Your task to perform on an android device: Go to privacy settings Image 0: 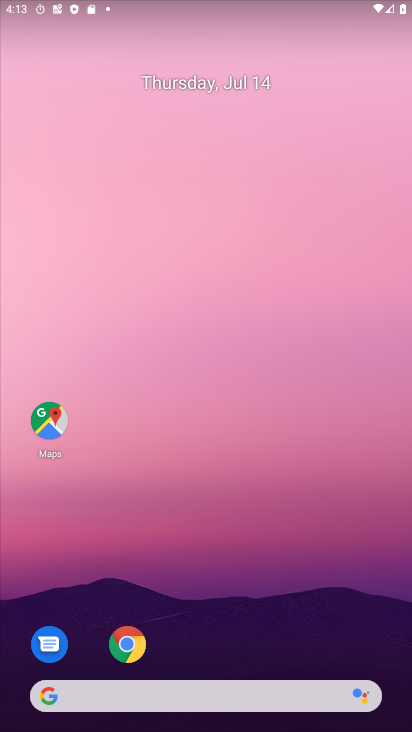
Step 0: drag from (257, 567) to (271, 2)
Your task to perform on an android device: Go to privacy settings Image 1: 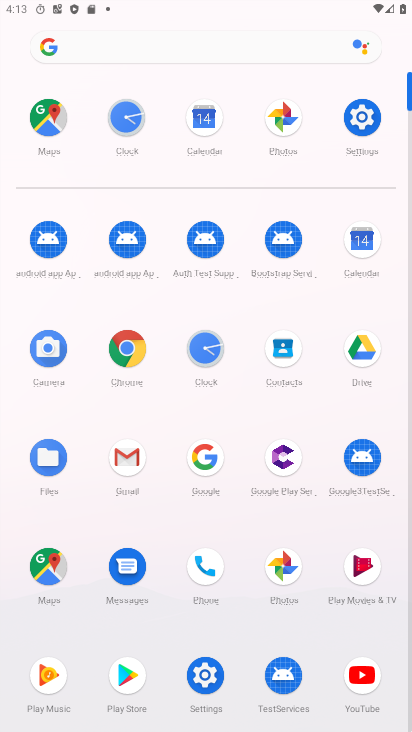
Step 1: click (370, 110)
Your task to perform on an android device: Go to privacy settings Image 2: 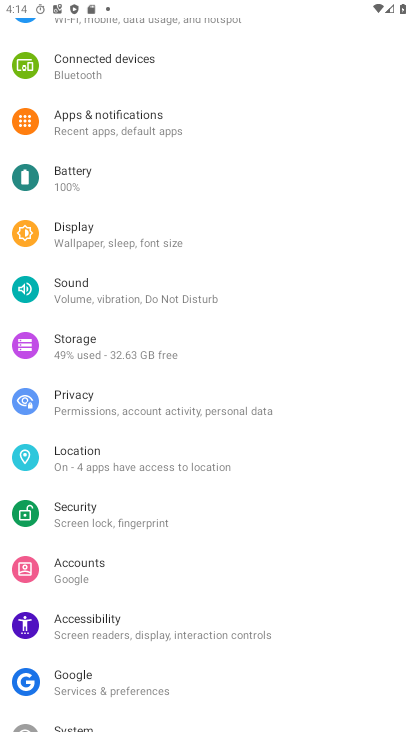
Step 2: click (122, 398)
Your task to perform on an android device: Go to privacy settings Image 3: 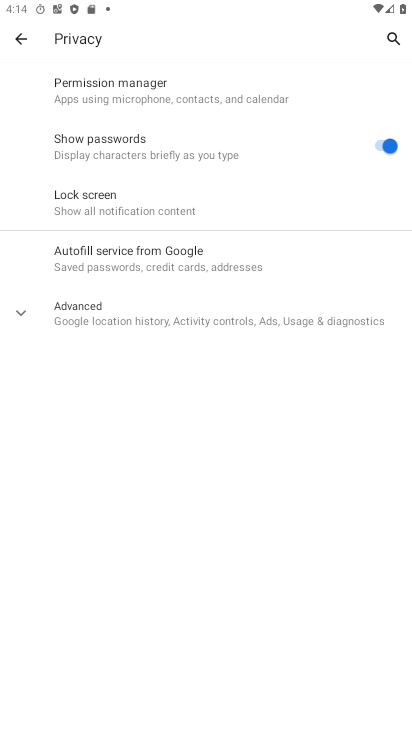
Step 3: task complete